Your task to perform on an android device: What's the weather going to be tomorrow? Image 0: 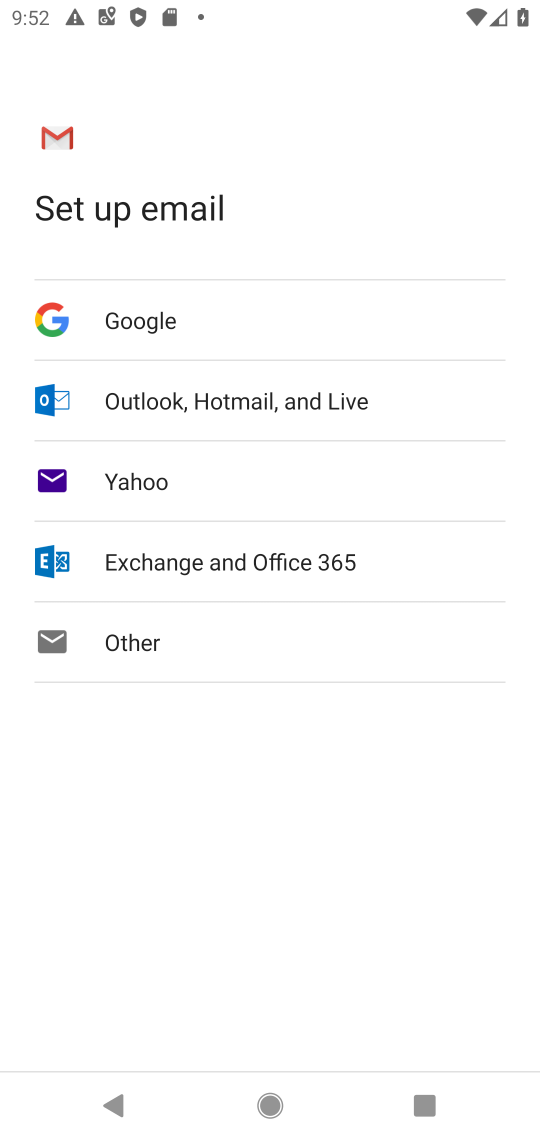
Step 0: press home button
Your task to perform on an android device: What's the weather going to be tomorrow? Image 1: 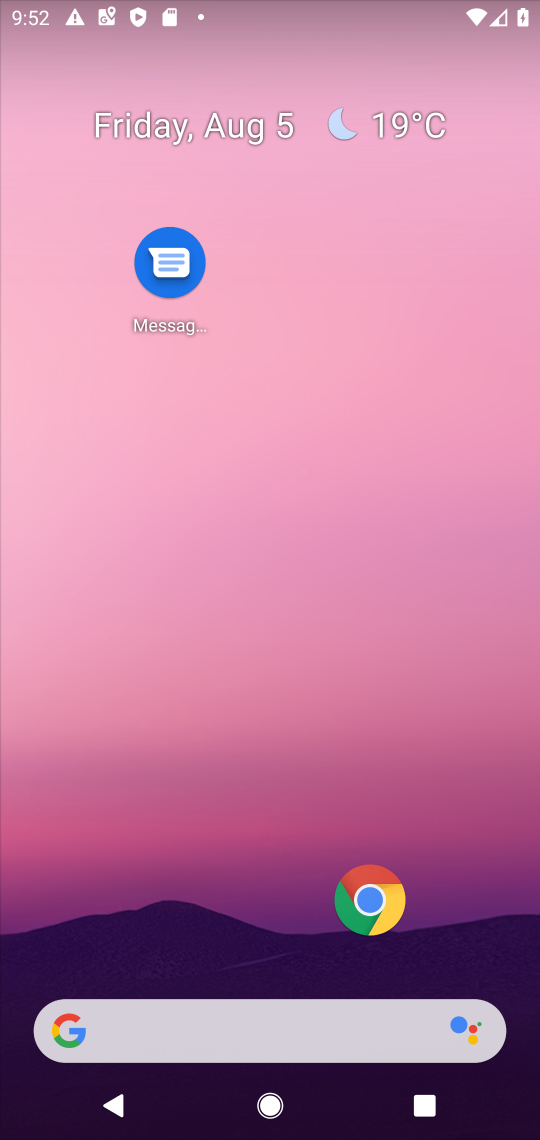
Step 1: drag from (142, 947) to (244, 10)
Your task to perform on an android device: What's the weather going to be tomorrow? Image 2: 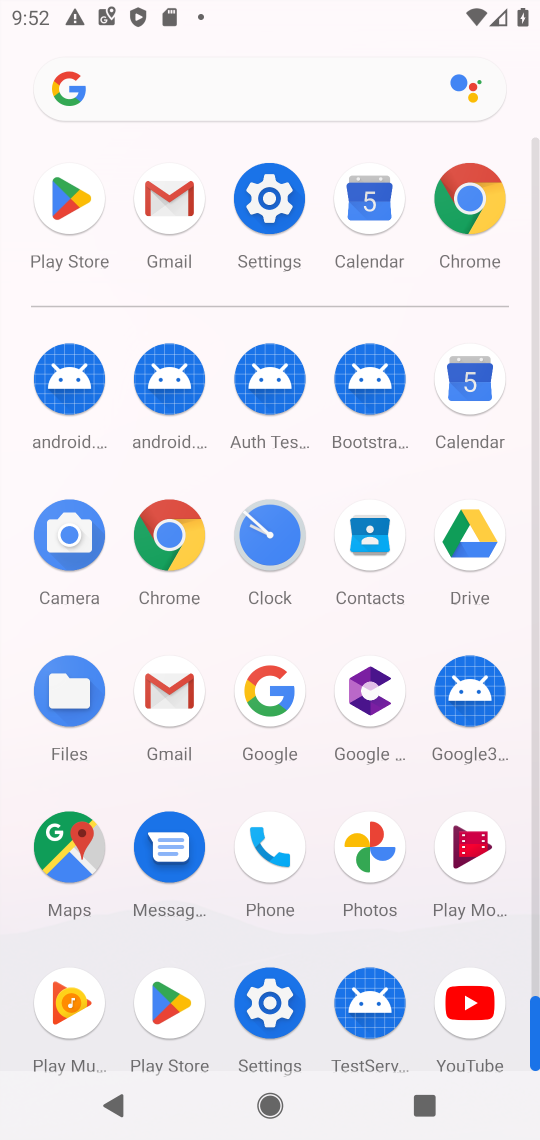
Step 2: click (174, 537)
Your task to perform on an android device: What's the weather going to be tomorrow? Image 3: 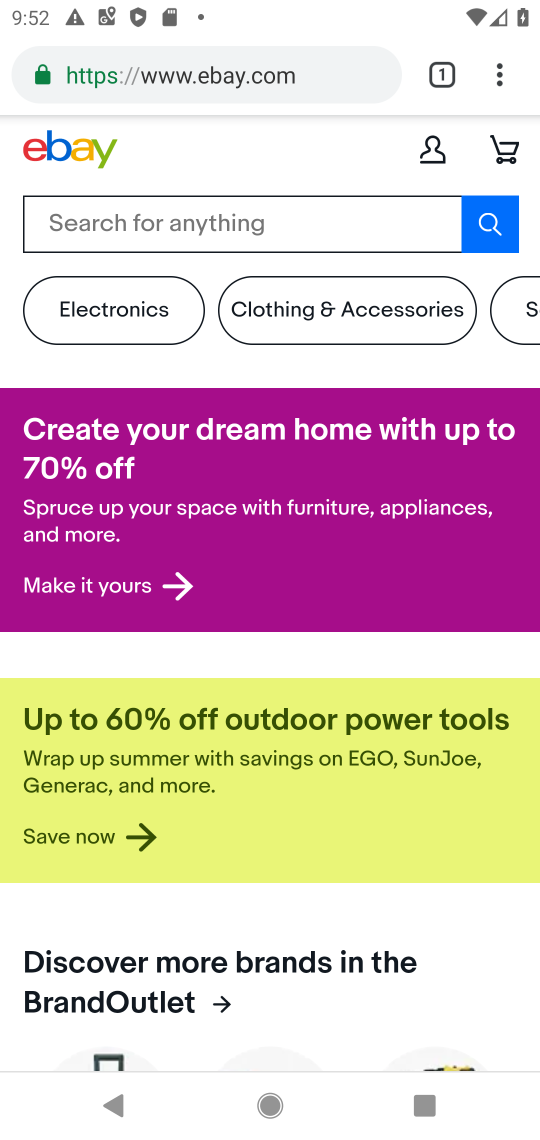
Step 3: click (171, 73)
Your task to perform on an android device: What's the weather going to be tomorrow? Image 4: 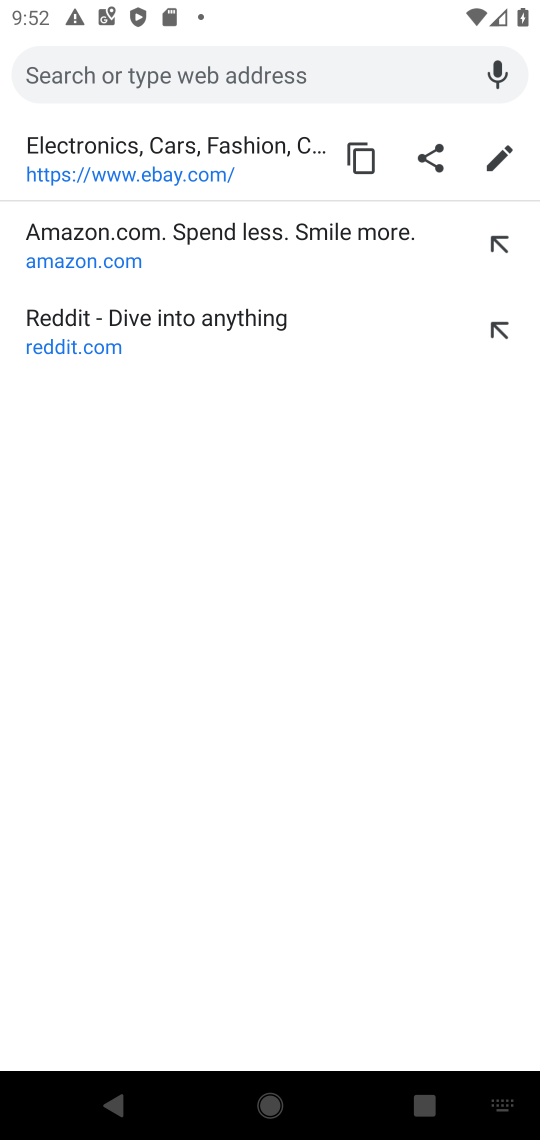
Step 4: type "What's the weather going to be tomorrow?"
Your task to perform on an android device: What's the weather going to be tomorrow? Image 5: 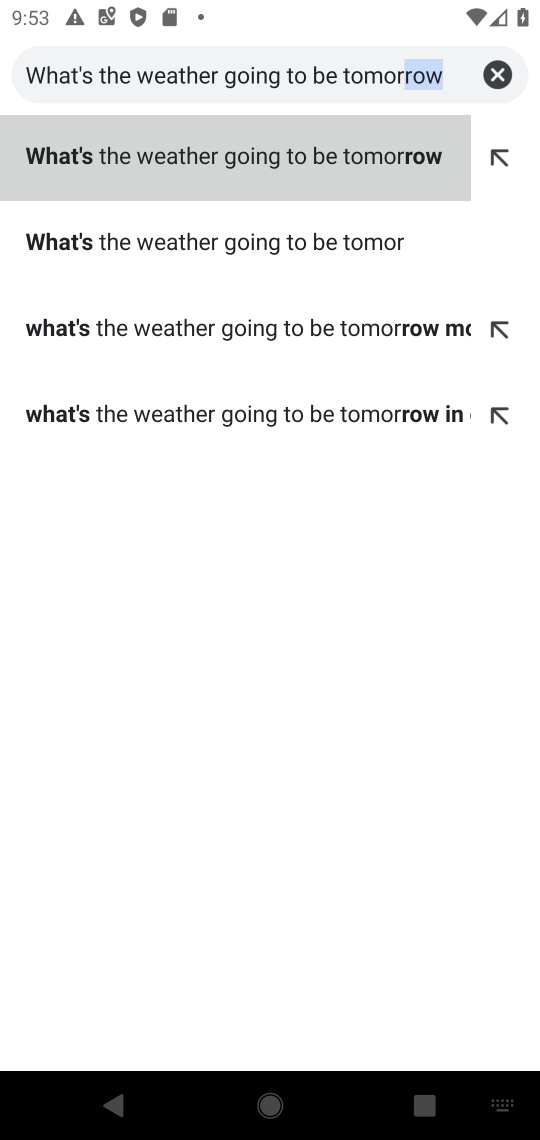
Step 5: click (151, 153)
Your task to perform on an android device: What's the weather going to be tomorrow? Image 6: 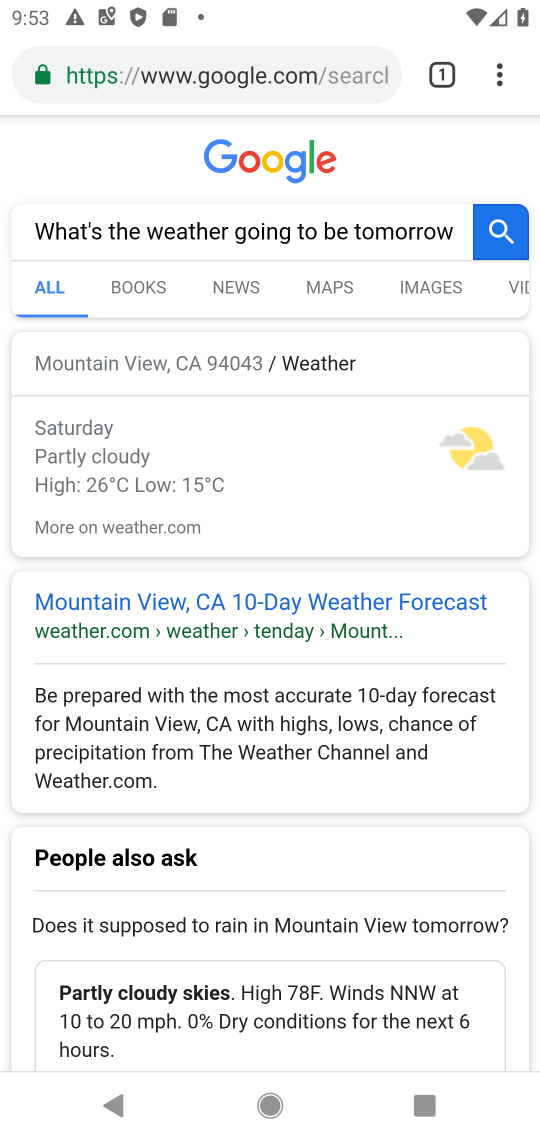
Step 6: task complete